Your task to perform on an android device: turn off smart reply in the gmail app Image 0: 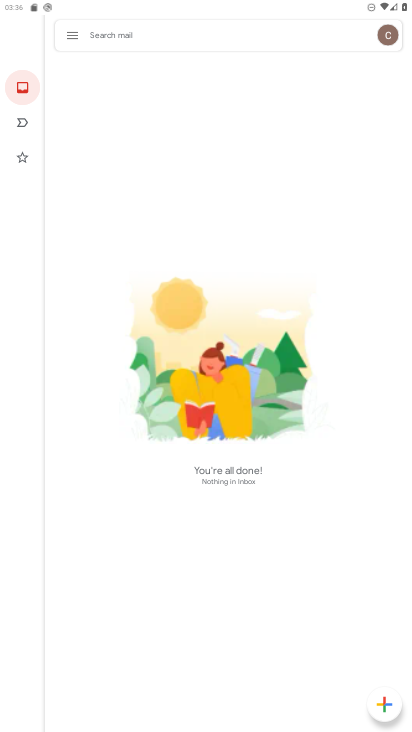
Step 0: press home button
Your task to perform on an android device: turn off smart reply in the gmail app Image 1: 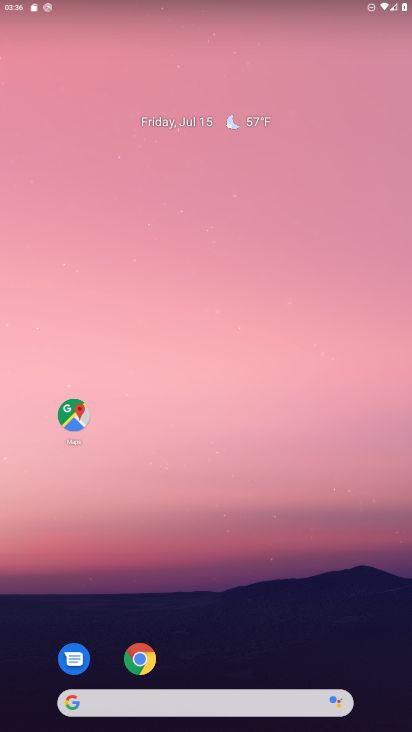
Step 1: drag from (242, 465) to (242, 119)
Your task to perform on an android device: turn off smart reply in the gmail app Image 2: 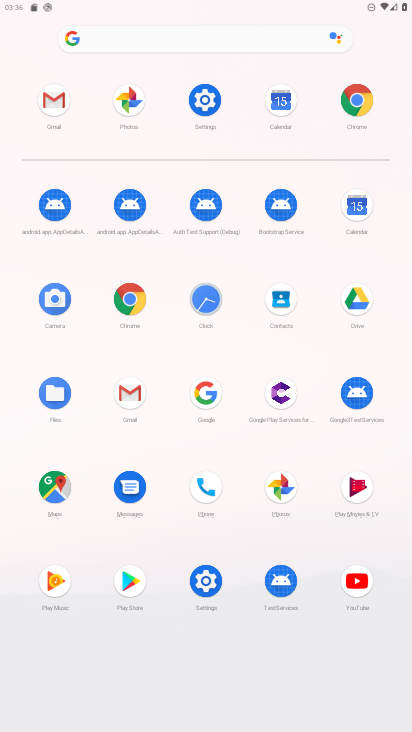
Step 2: click (139, 405)
Your task to perform on an android device: turn off smart reply in the gmail app Image 3: 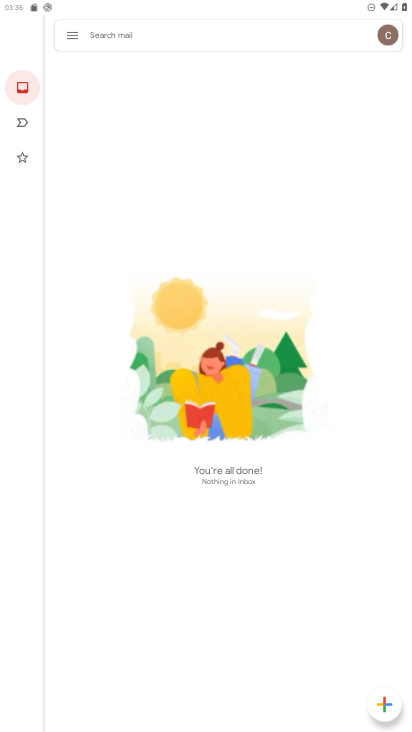
Step 3: click (63, 34)
Your task to perform on an android device: turn off smart reply in the gmail app Image 4: 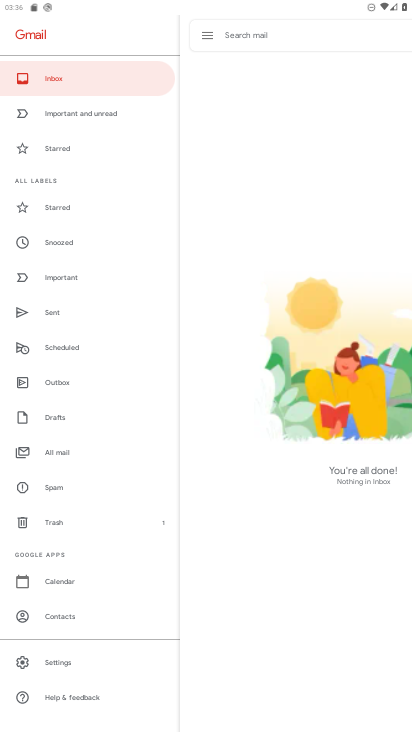
Step 4: drag from (64, 629) to (90, 502)
Your task to perform on an android device: turn off smart reply in the gmail app Image 5: 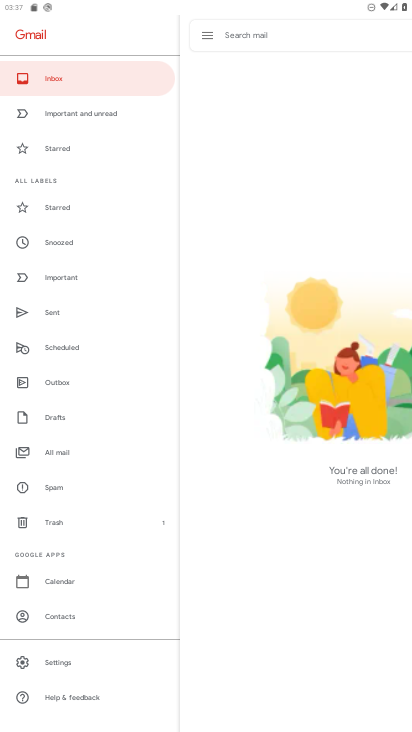
Step 5: click (70, 663)
Your task to perform on an android device: turn off smart reply in the gmail app Image 6: 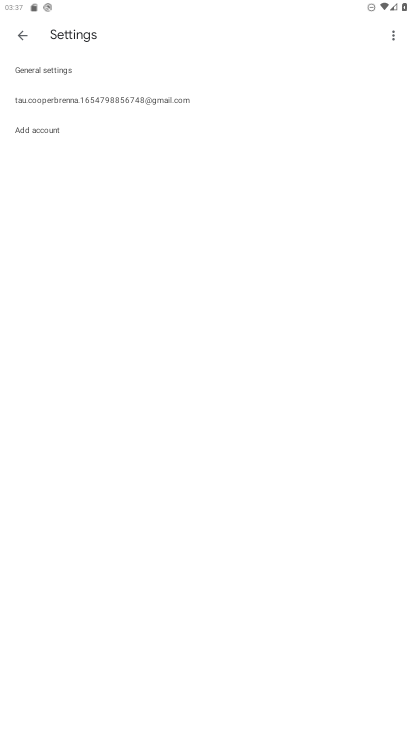
Step 6: click (76, 104)
Your task to perform on an android device: turn off smart reply in the gmail app Image 7: 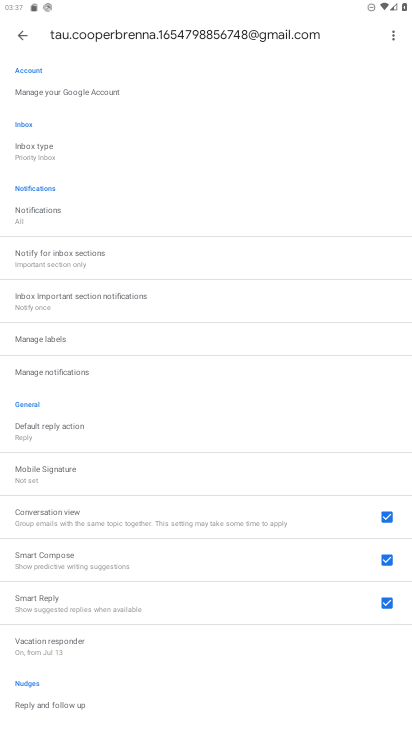
Step 7: click (374, 609)
Your task to perform on an android device: turn off smart reply in the gmail app Image 8: 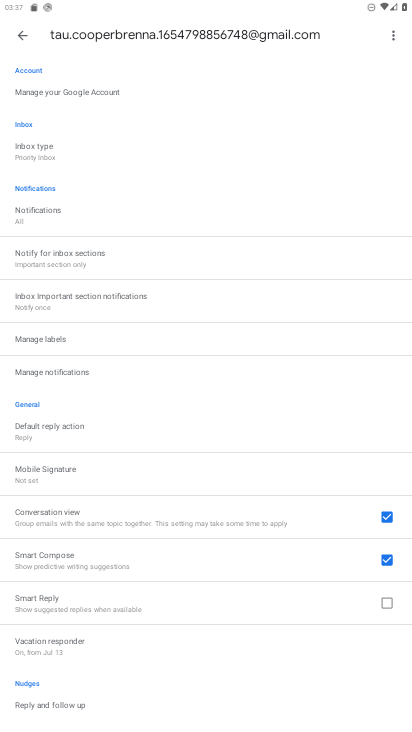
Step 8: task complete